Your task to perform on an android device: See recent photos Image 0: 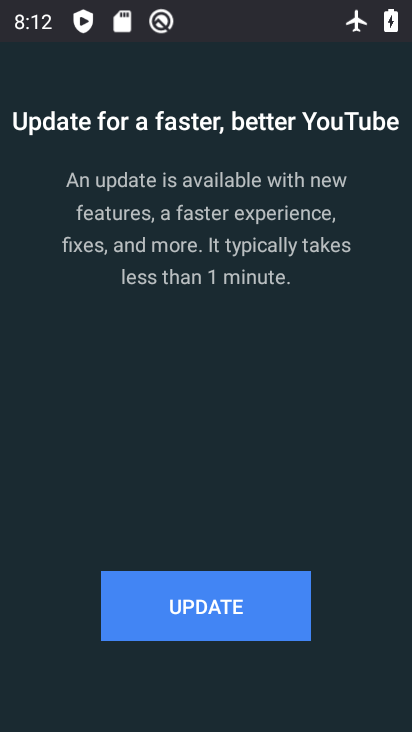
Step 0: press home button
Your task to perform on an android device: See recent photos Image 1: 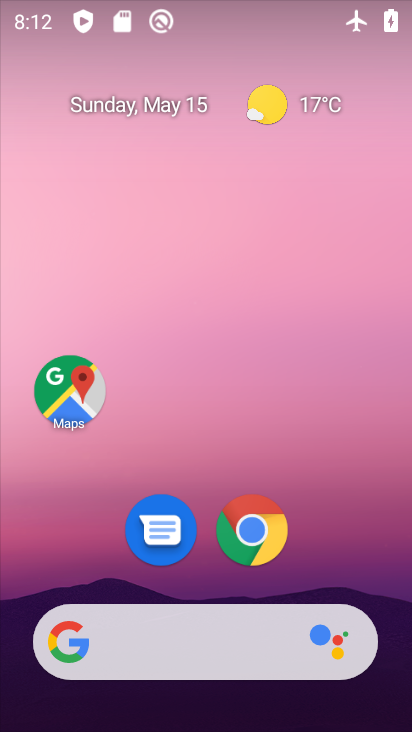
Step 1: drag from (196, 721) to (207, 171)
Your task to perform on an android device: See recent photos Image 2: 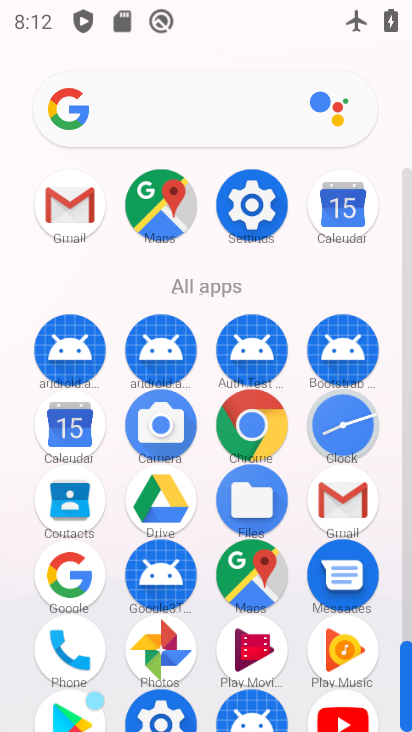
Step 2: click (151, 651)
Your task to perform on an android device: See recent photos Image 3: 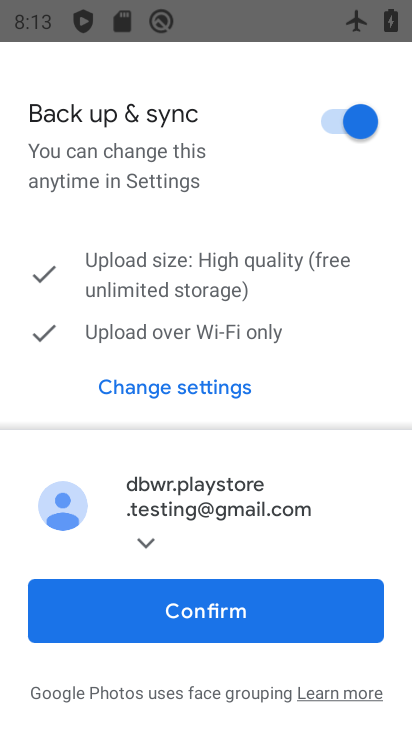
Step 3: click (173, 618)
Your task to perform on an android device: See recent photos Image 4: 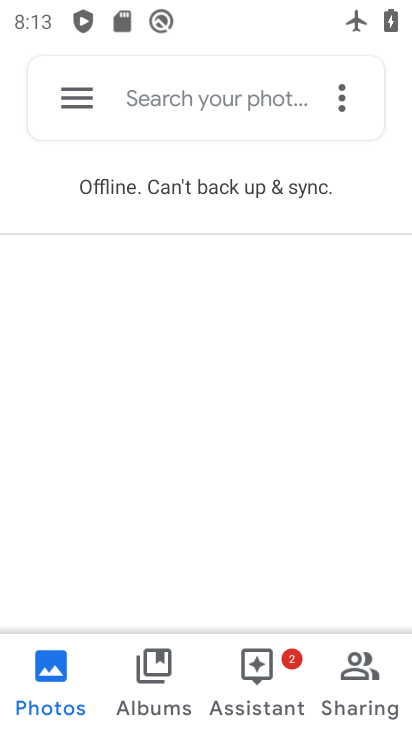
Step 4: task complete